Your task to perform on an android device: change the clock display to show seconds Image 0: 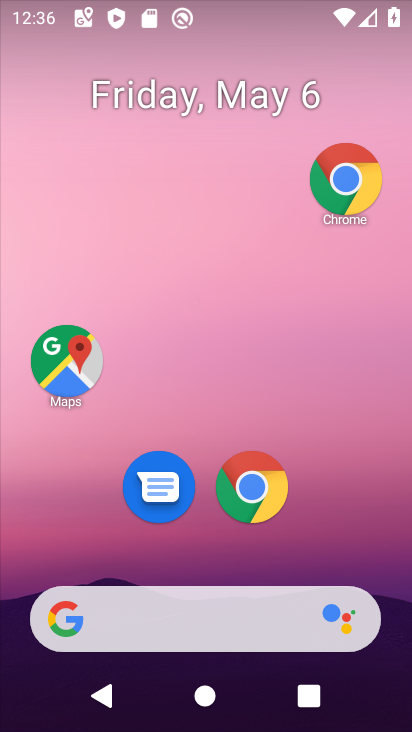
Step 0: drag from (331, 500) to (309, 157)
Your task to perform on an android device: change the clock display to show seconds Image 1: 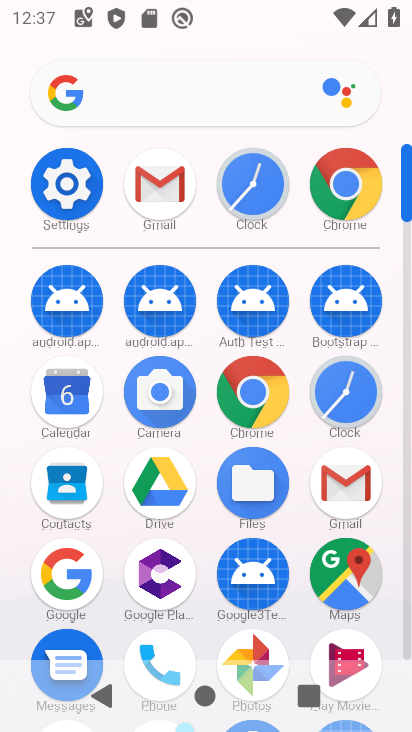
Step 1: click (63, 184)
Your task to perform on an android device: change the clock display to show seconds Image 2: 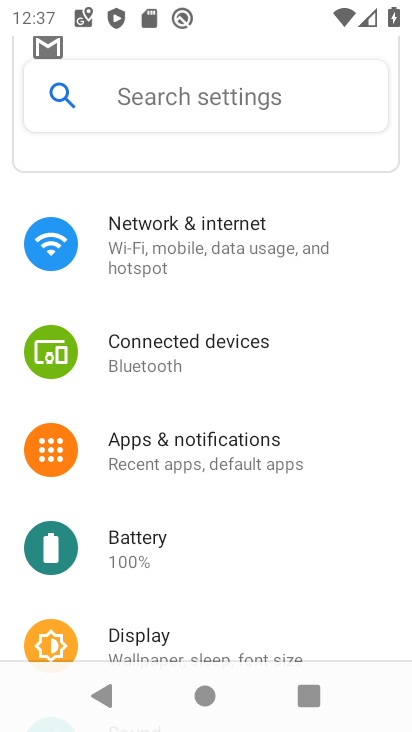
Step 2: press home button
Your task to perform on an android device: change the clock display to show seconds Image 3: 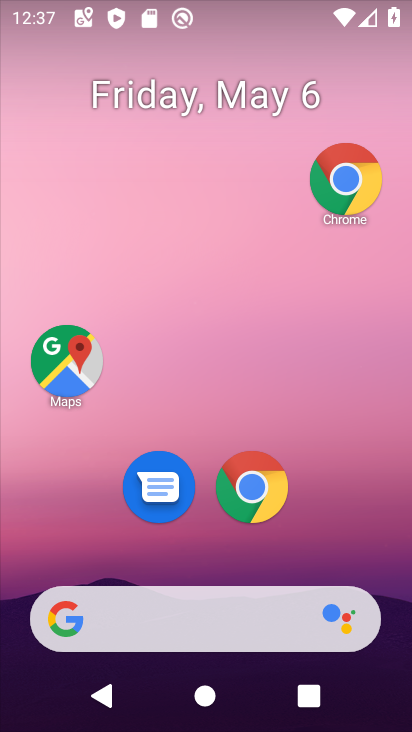
Step 3: drag from (306, 532) to (281, 171)
Your task to perform on an android device: change the clock display to show seconds Image 4: 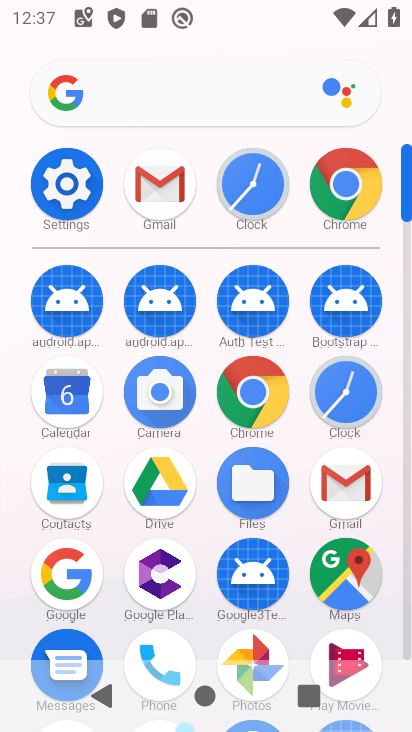
Step 4: click (252, 207)
Your task to perform on an android device: change the clock display to show seconds Image 5: 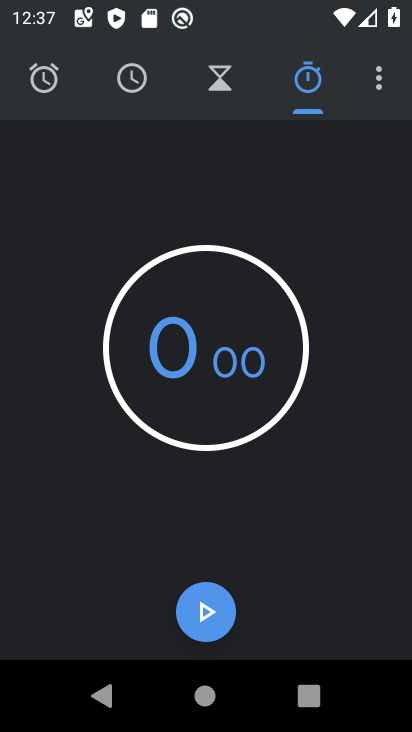
Step 5: click (370, 95)
Your task to perform on an android device: change the clock display to show seconds Image 6: 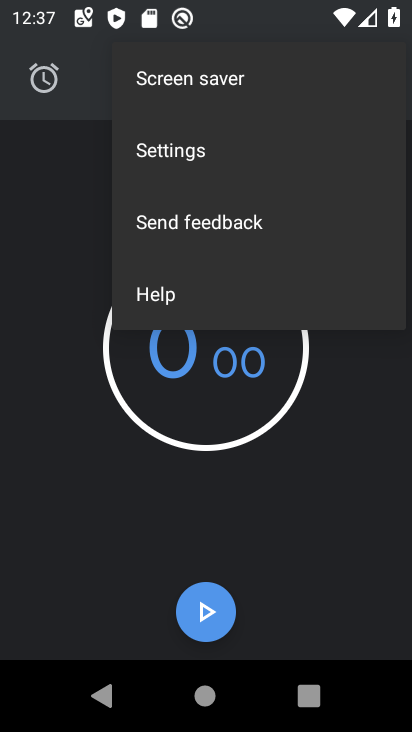
Step 6: click (280, 159)
Your task to perform on an android device: change the clock display to show seconds Image 7: 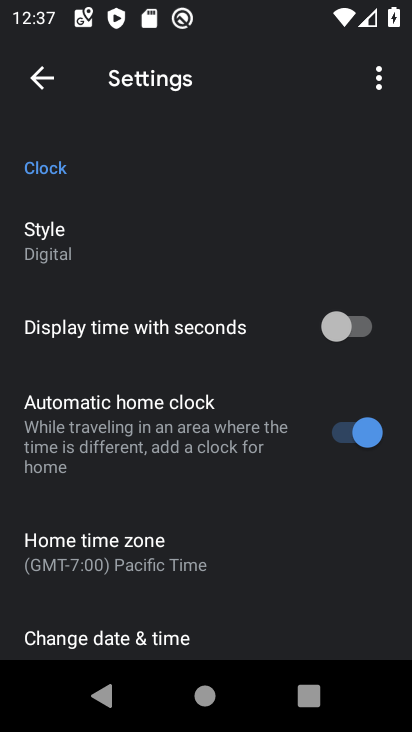
Step 7: click (308, 338)
Your task to perform on an android device: change the clock display to show seconds Image 8: 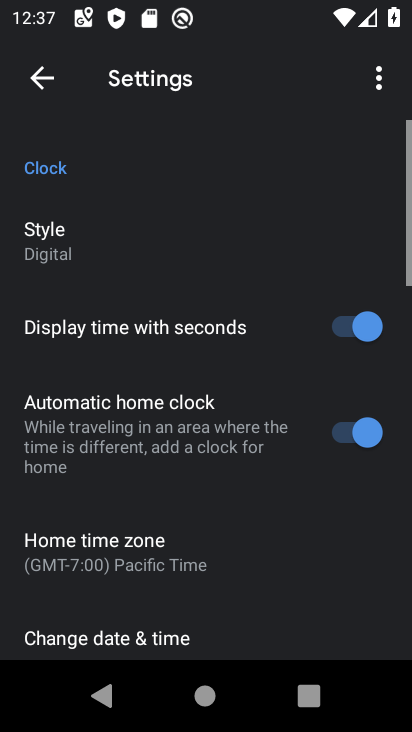
Step 8: task complete